Your task to perform on an android device: Open the stopwatch Image 0: 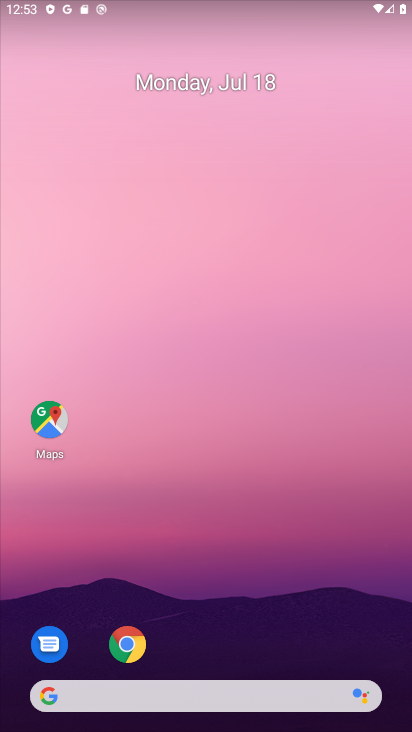
Step 0: drag from (296, 682) to (321, 145)
Your task to perform on an android device: Open the stopwatch Image 1: 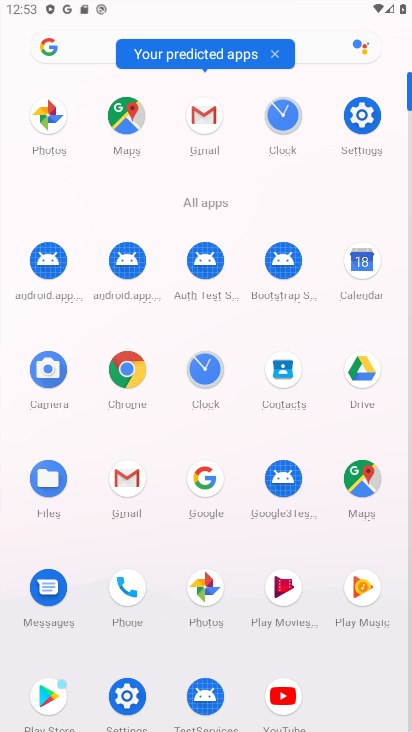
Step 1: click (200, 379)
Your task to perform on an android device: Open the stopwatch Image 2: 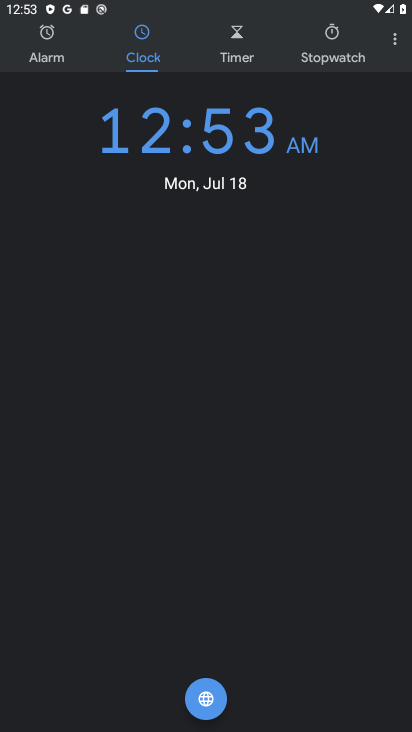
Step 2: click (344, 34)
Your task to perform on an android device: Open the stopwatch Image 3: 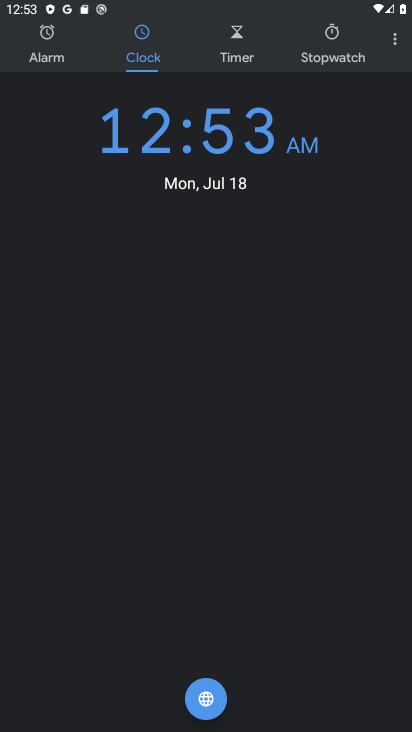
Step 3: click (333, 39)
Your task to perform on an android device: Open the stopwatch Image 4: 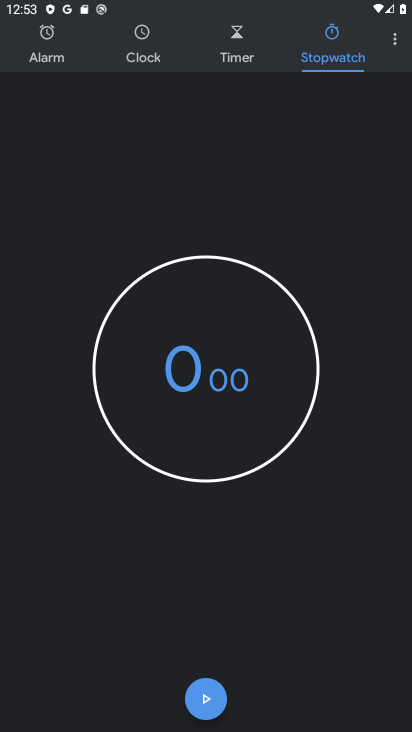
Step 4: task complete